Your task to perform on an android device: change notifications settings Image 0: 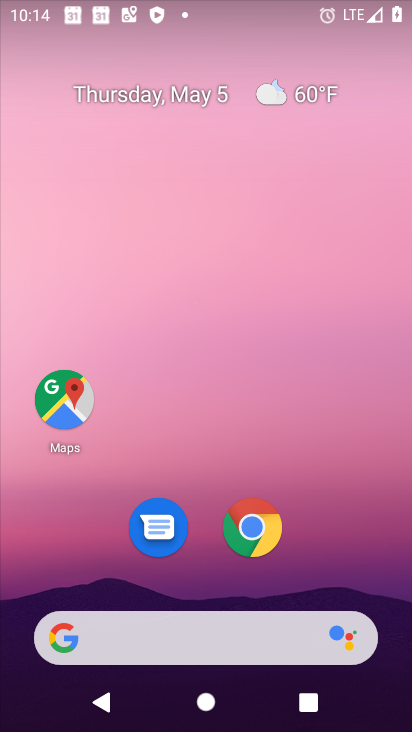
Step 0: drag from (233, 702) to (212, 38)
Your task to perform on an android device: change notifications settings Image 1: 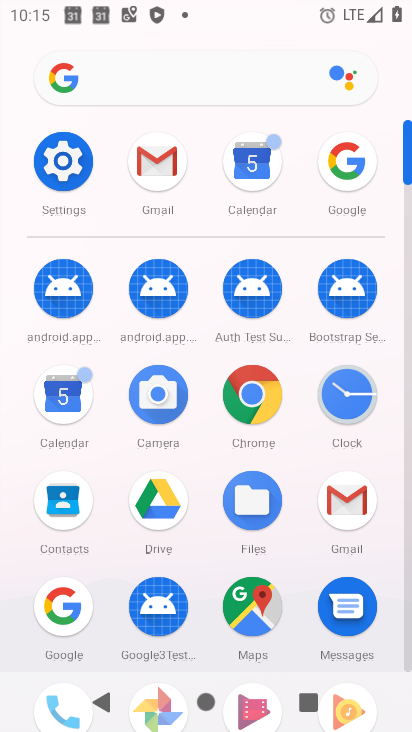
Step 1: click (49, 136)
Your task to perform on an android device: change notifications settings Image 2: 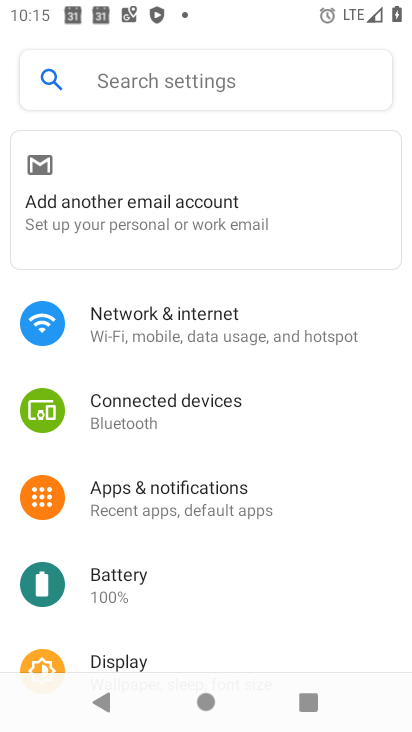
Step 2: click (248, 500)
Your task to perform on an android device: change notifications settings Image 3: 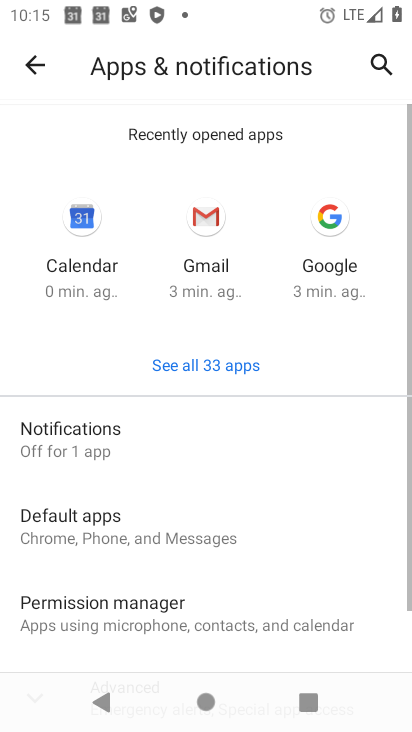
Step 3: click (189, 235)
Your task to perform on an android device: change notifications settings Image 4: 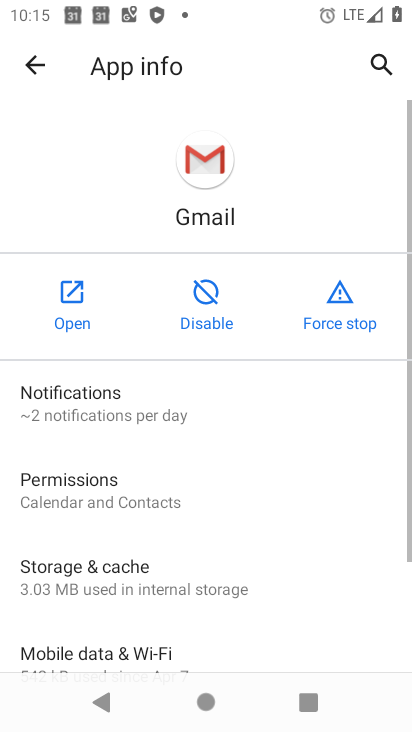
Step 4: click (268, 405)
Your task to perform on an android device: change notifications settings Image 5: 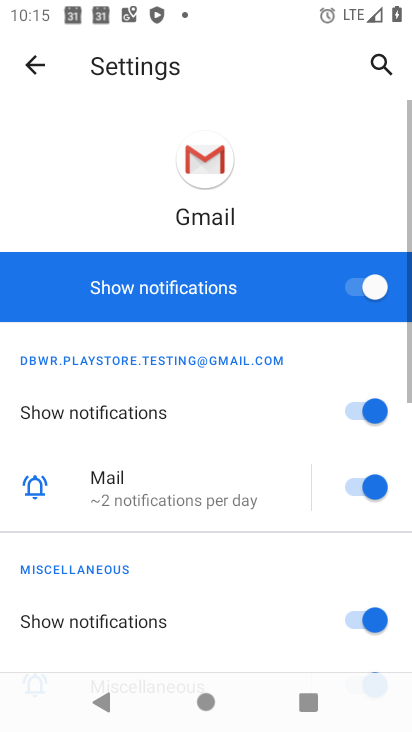
Step 5: click (373, 286)
Your task to perform on an android device: change notifications settings Image 6: 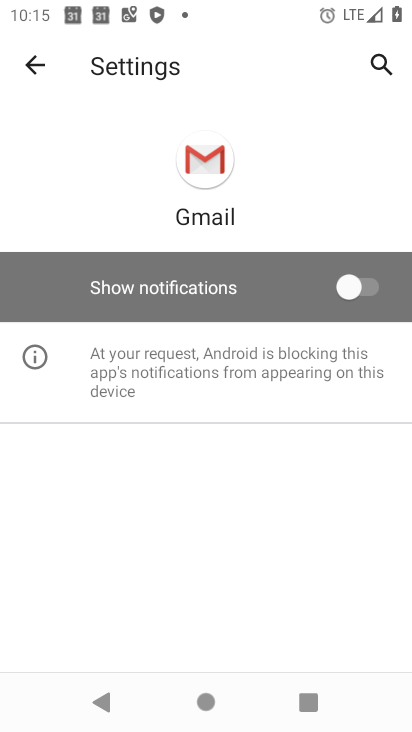
Step 6: task complete